Your task to perform on an android device: move an email to a new category in the gmail app Image 0: 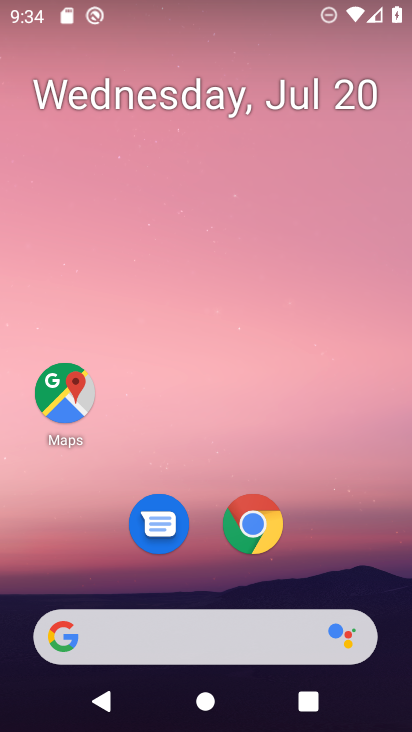
Step 0: press home button
Your task to perform on an android device: move an email to a new category in the gmail app Image 1: 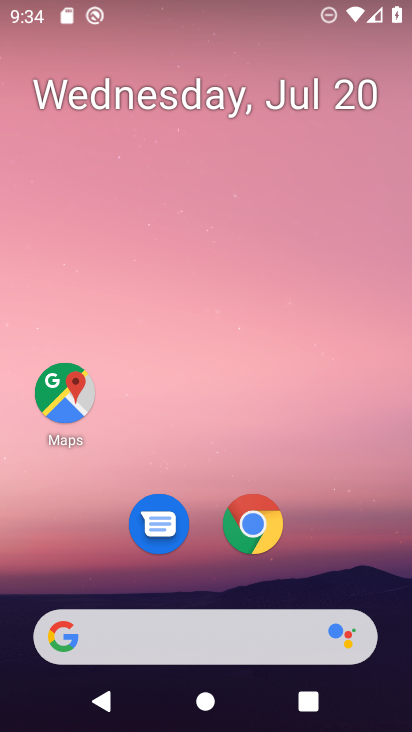
Step 1: drag from (220, 634) to (311, 146)
Your task to perform on an android device: move an email to a new category in the gmail app Image 2: 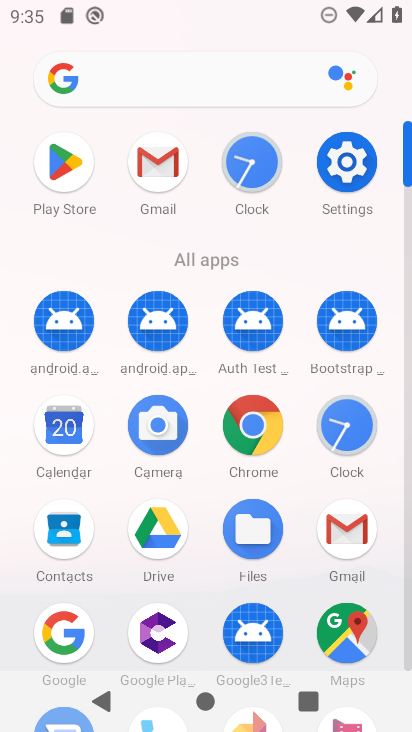
Step 2: click (162, 172)
Your task to perform on an android device: move an email to a new category in the gmail app Image 3: 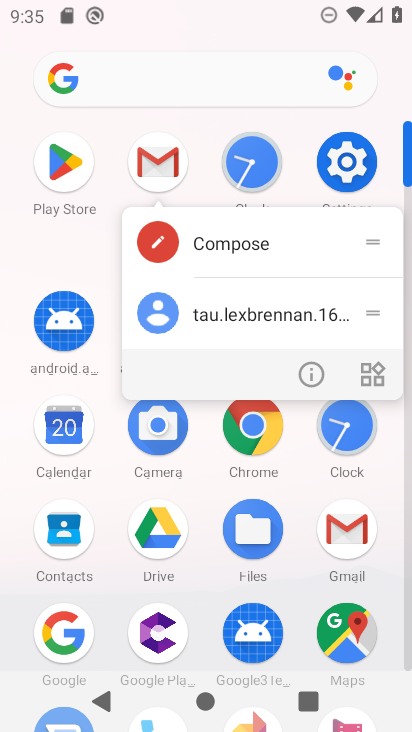
Step 3: click (162, 170)
Your task to perform on an android device: move an email to a new category in the gmail app Image 4: 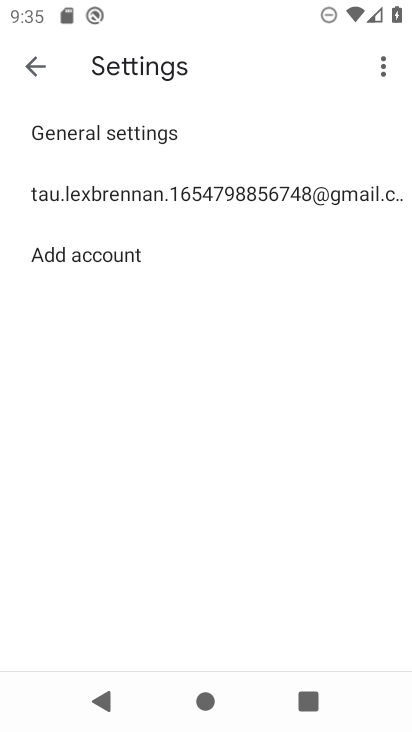
Step 4: click (34, 61)
Your task to perform on an android device: move an email to a new category in the gmail app Image 5: 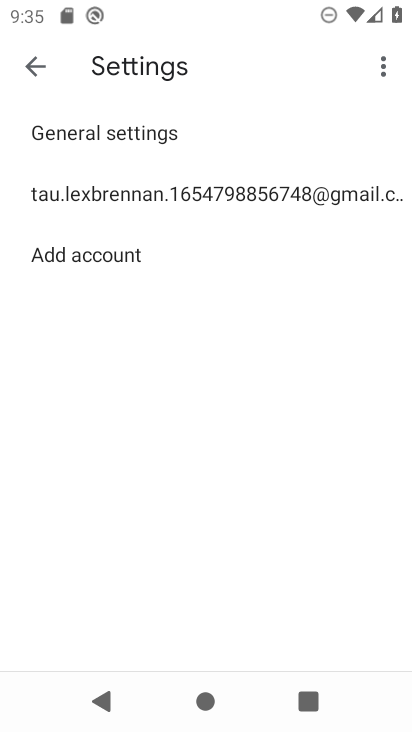
Step 5: click (35, 68)
Your task to perform on an android device: move an email to a new category in the gmail app Image 6: 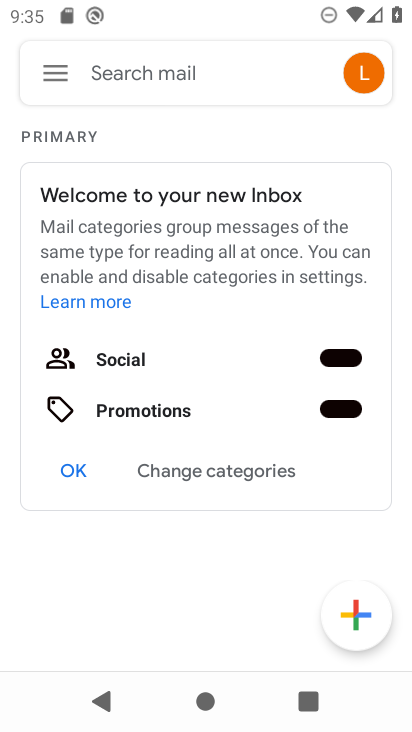
Step 6: task complete